Your task to perform on an android device: read, delete, or share a saved page in the chrome app Image 0: 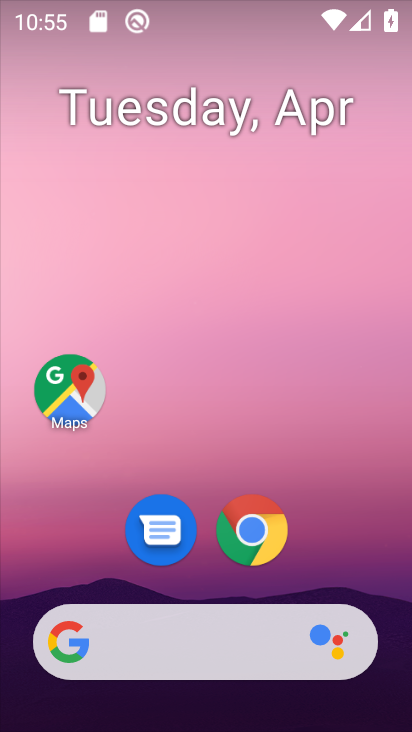
Step 0: drag from (212, 610) to (302, 228)
Your task to perform on an android device: read, delete, or share a saved page in the chrome app Image 1: 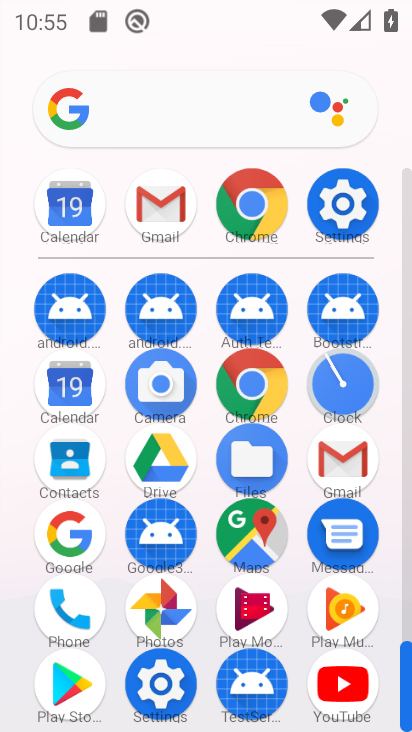
Step 1: click (255, 223)
Your task to perform on an android device: read, delete, or share a saved page in the chrome app Image 2: 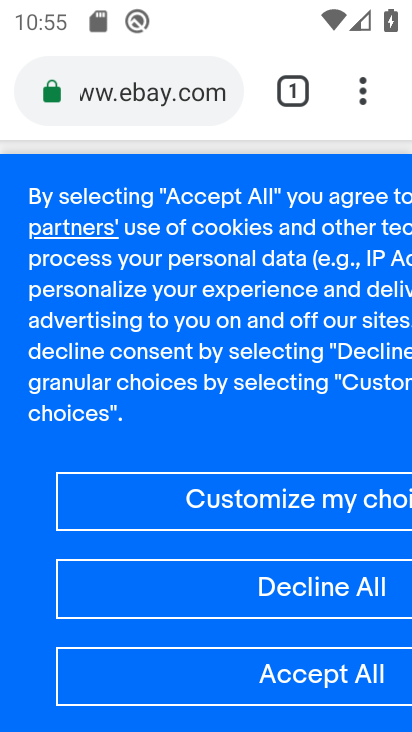
Step 2: click (363, 95)
Your task to perform on an android device: read, delete, or share a saved page in the chrome app Image 3: 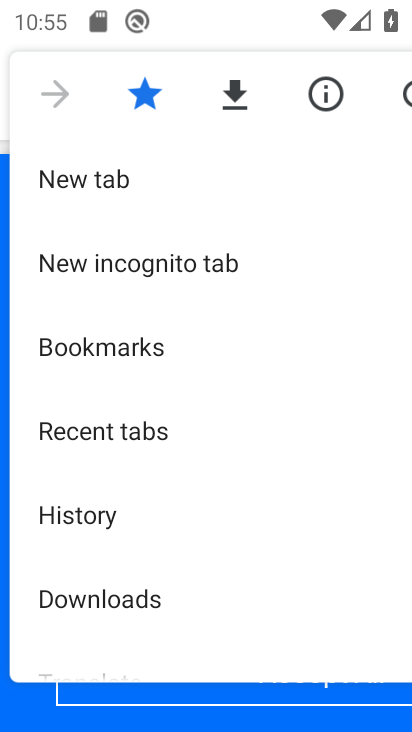
Step 3: click (105, 599)
Your task to perform on an android device: read, delete, or share a saved page in the chrome app Image 4: 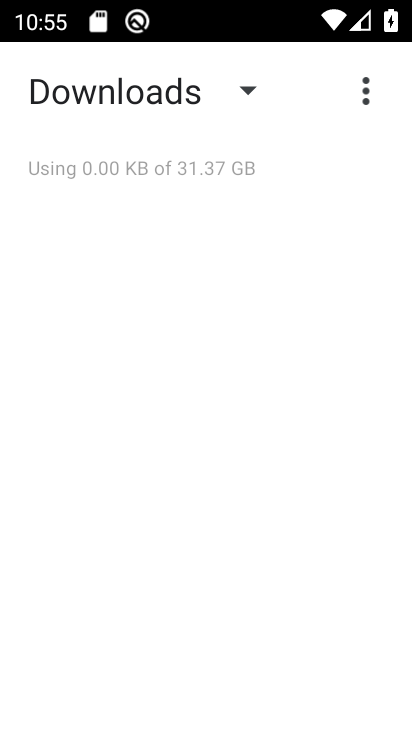
Step 4: click (219, 87)
Your task to perform on an android device: read, delete, or share a saved page in the chrome app Image 5: 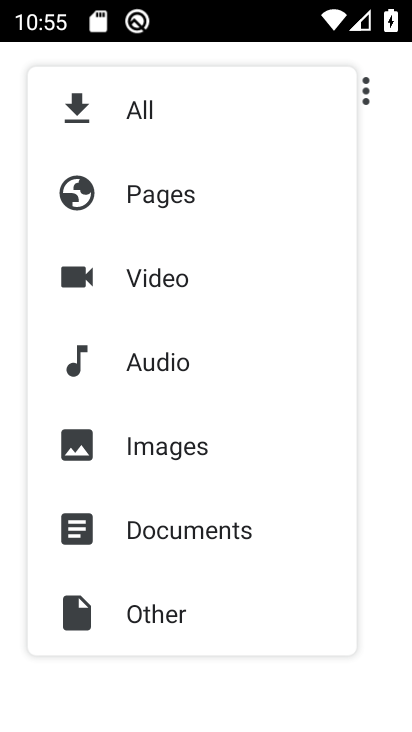
Step 5: click (157, 187)
Your task to perform on an android device: read, delete, or share a saved page in the chrome app Image 6: 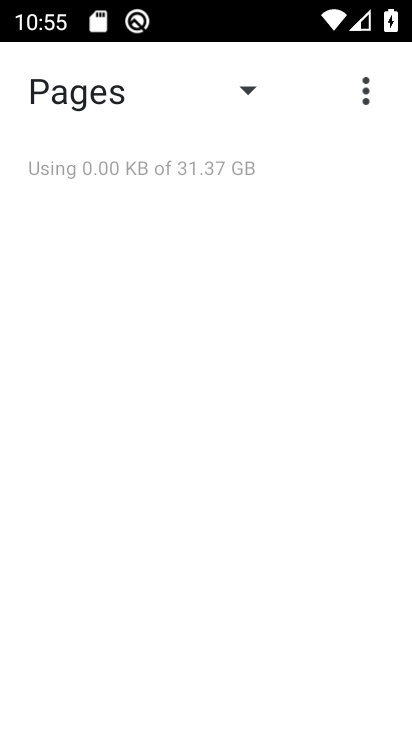
Step 6: task complete